Your task to perform on an android device: Show the shopping cart on costco.com. Image 0: 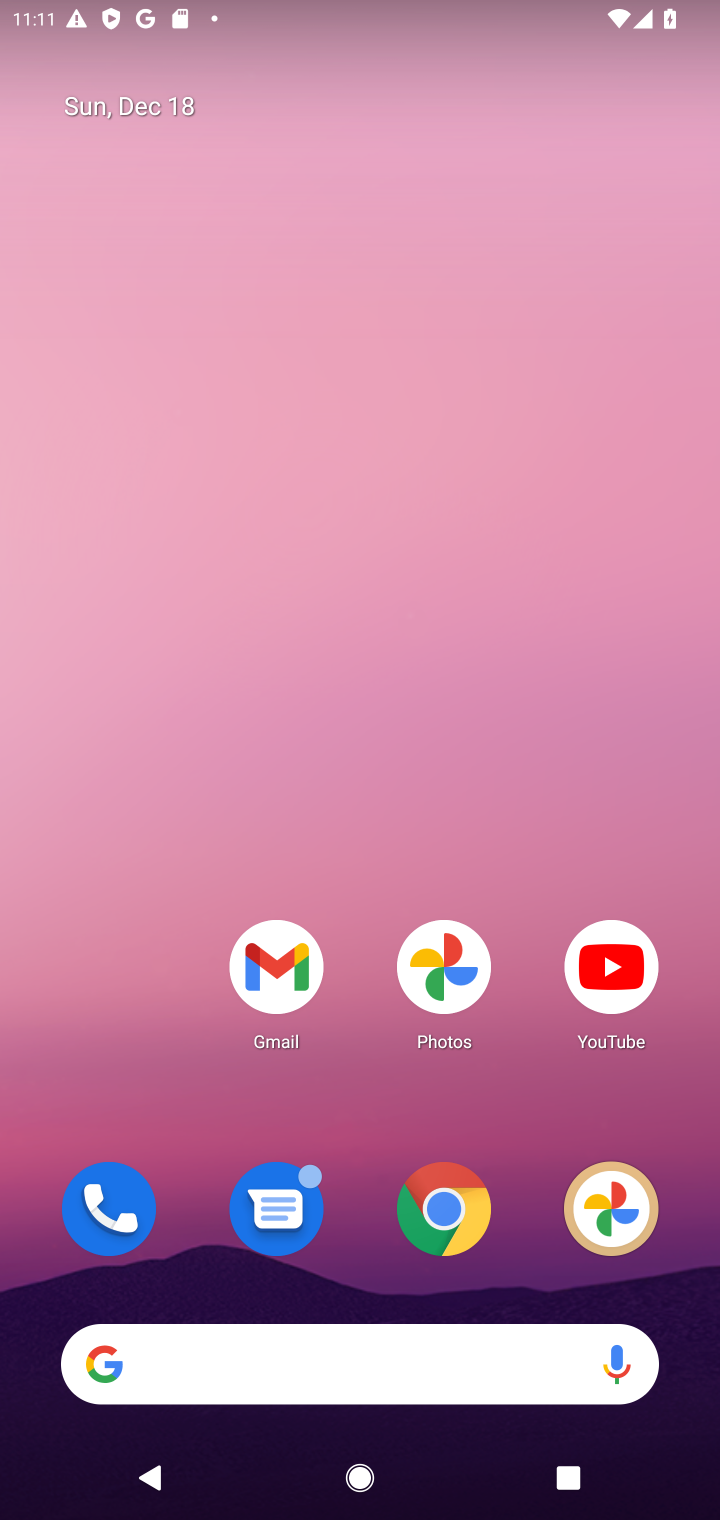
Step 0: click (452, 1218)
Your task to perform on an android device: Show the shopping cart on costco.com. Image 1: 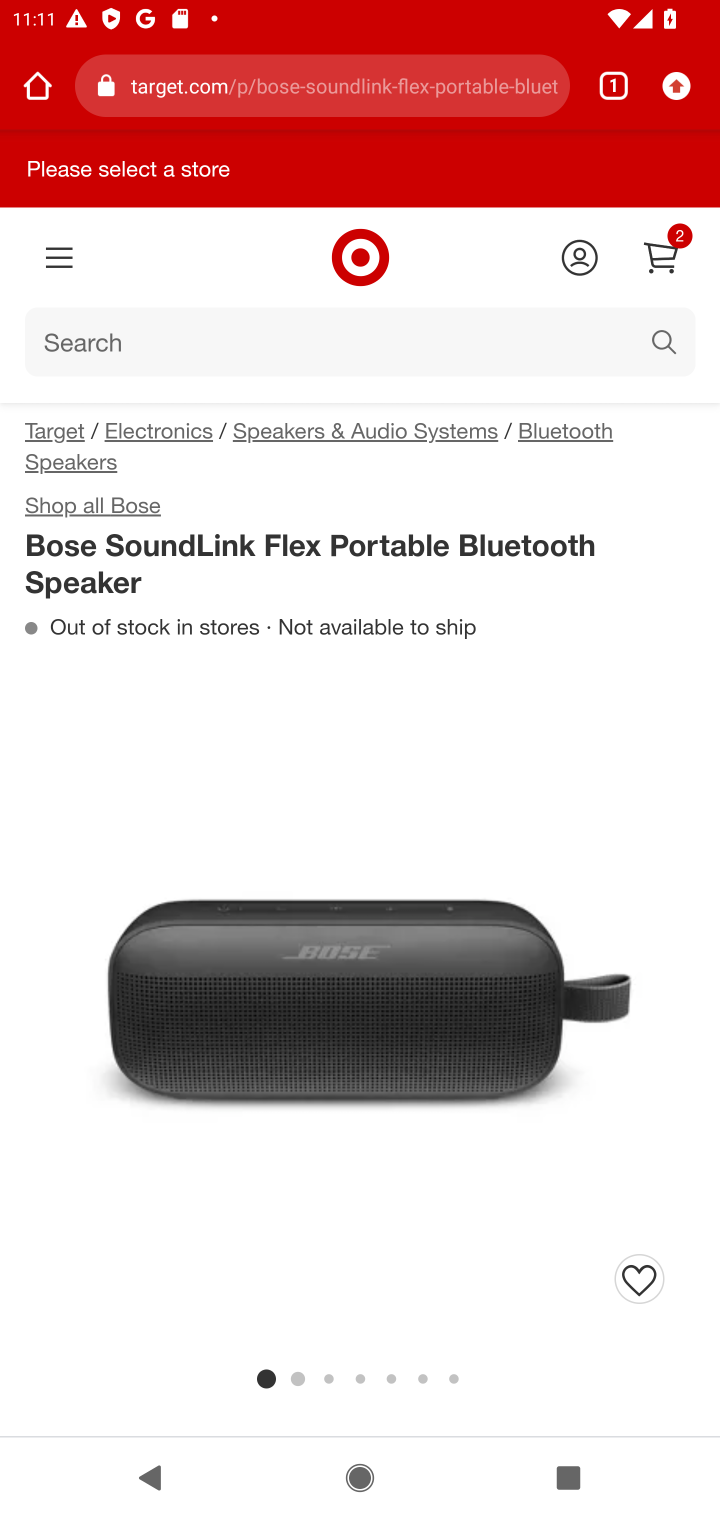
Step 1: click (353, 78)
Your task to perform on an android device: Show the shopping cart on costco.com. Image 2: 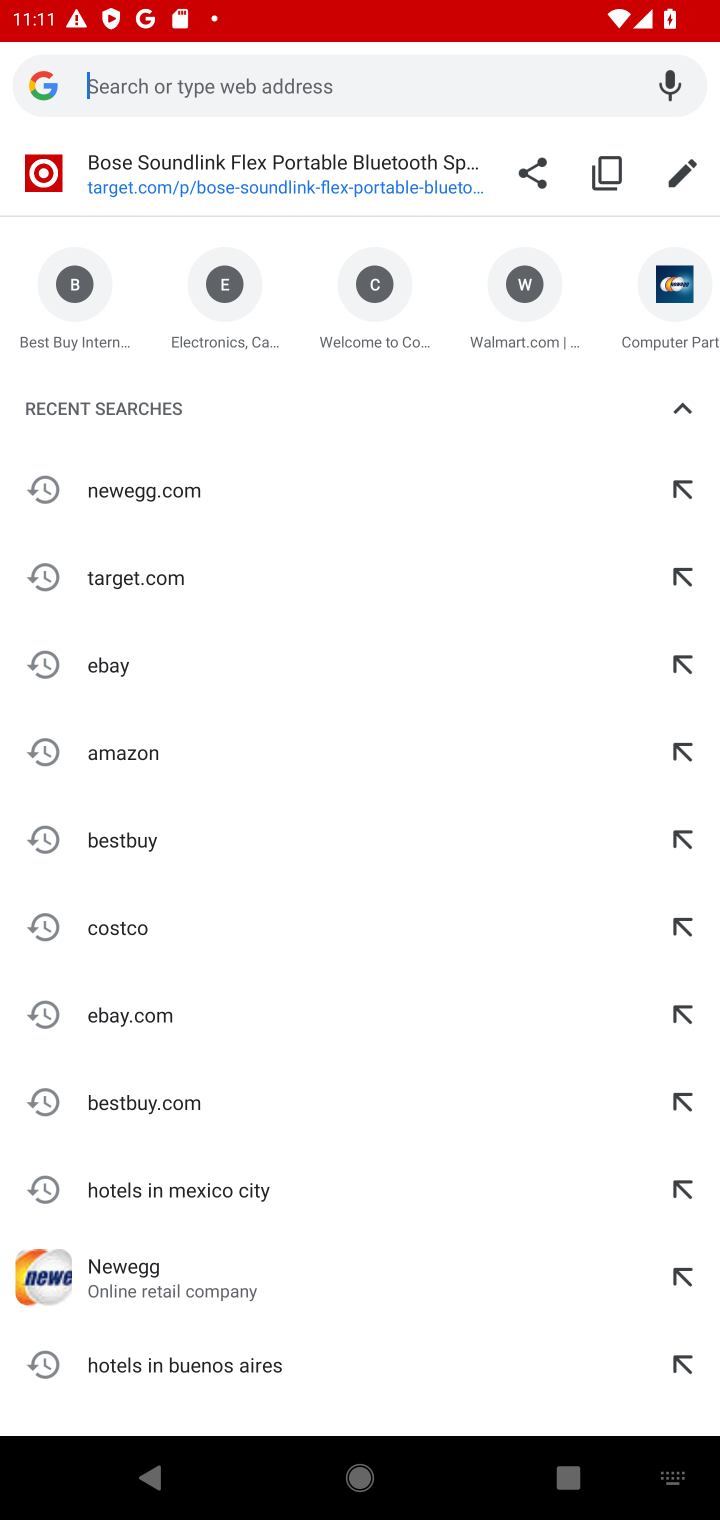
Step 2: type "COSTCO"
Your task to perform on an android device: Show the shopping cart on costco.com. Image 3: 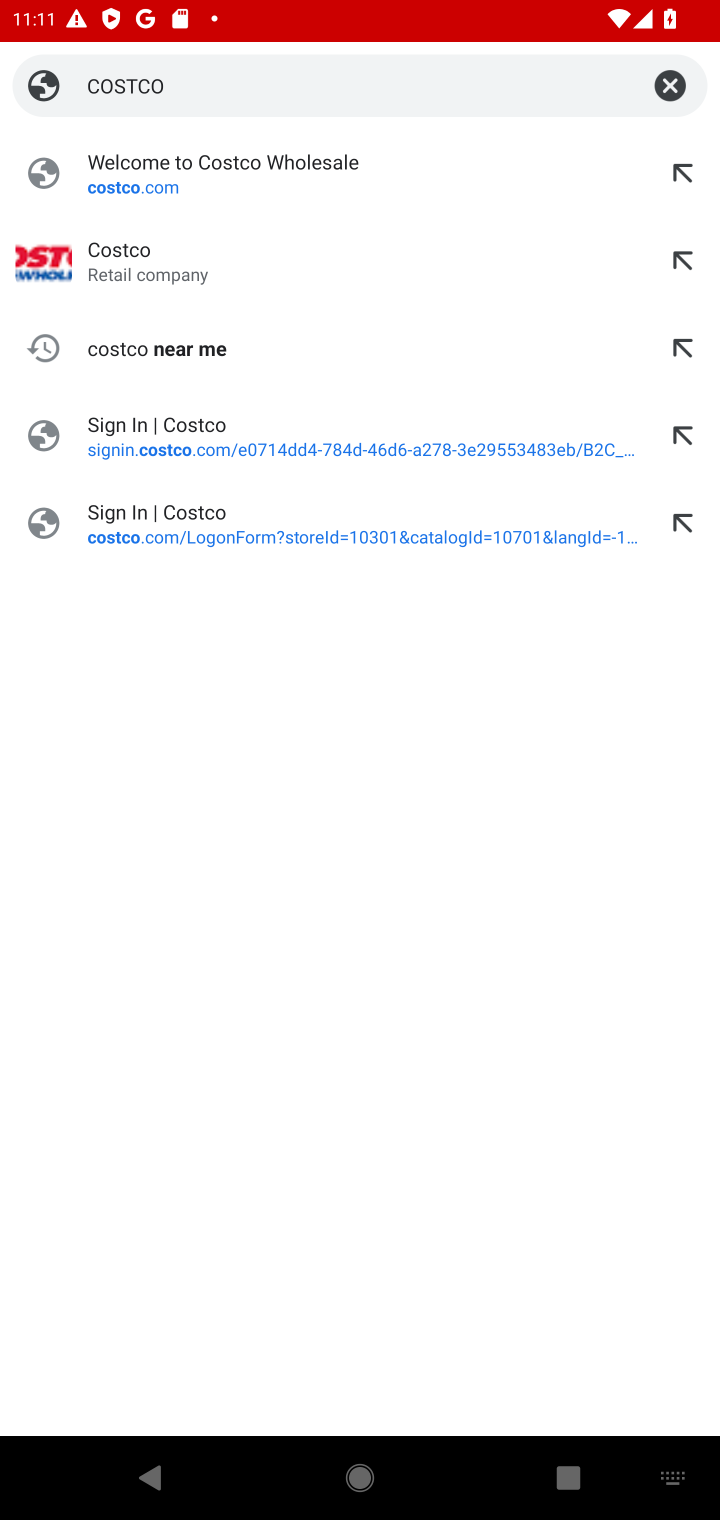
Step 3: click (167, 178)
Your task to perform on an android device: Show the shopping cart on costco.com. Image 4: 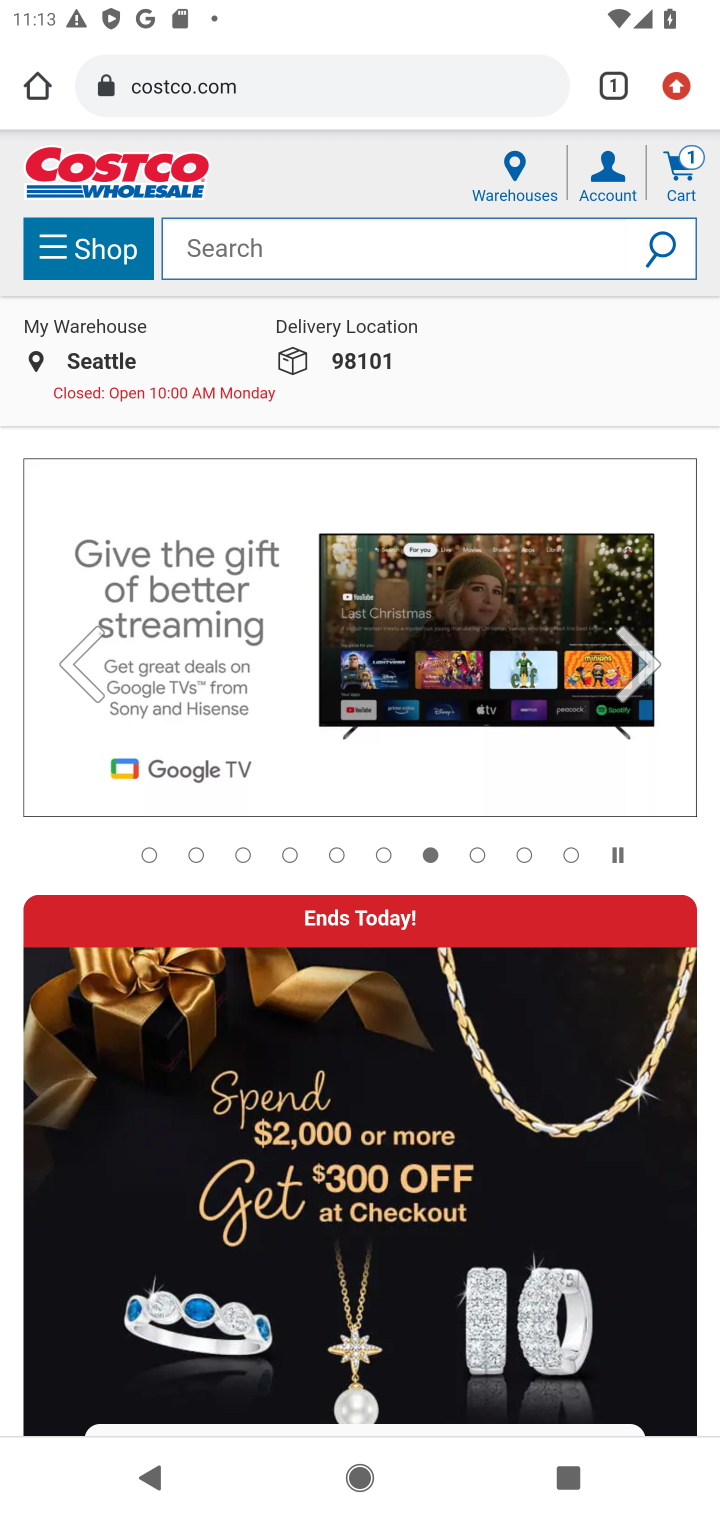
Step 4: click (76, 663)
Your task to perform on an android device: Show the shopping cart on costco.com. Image 5: 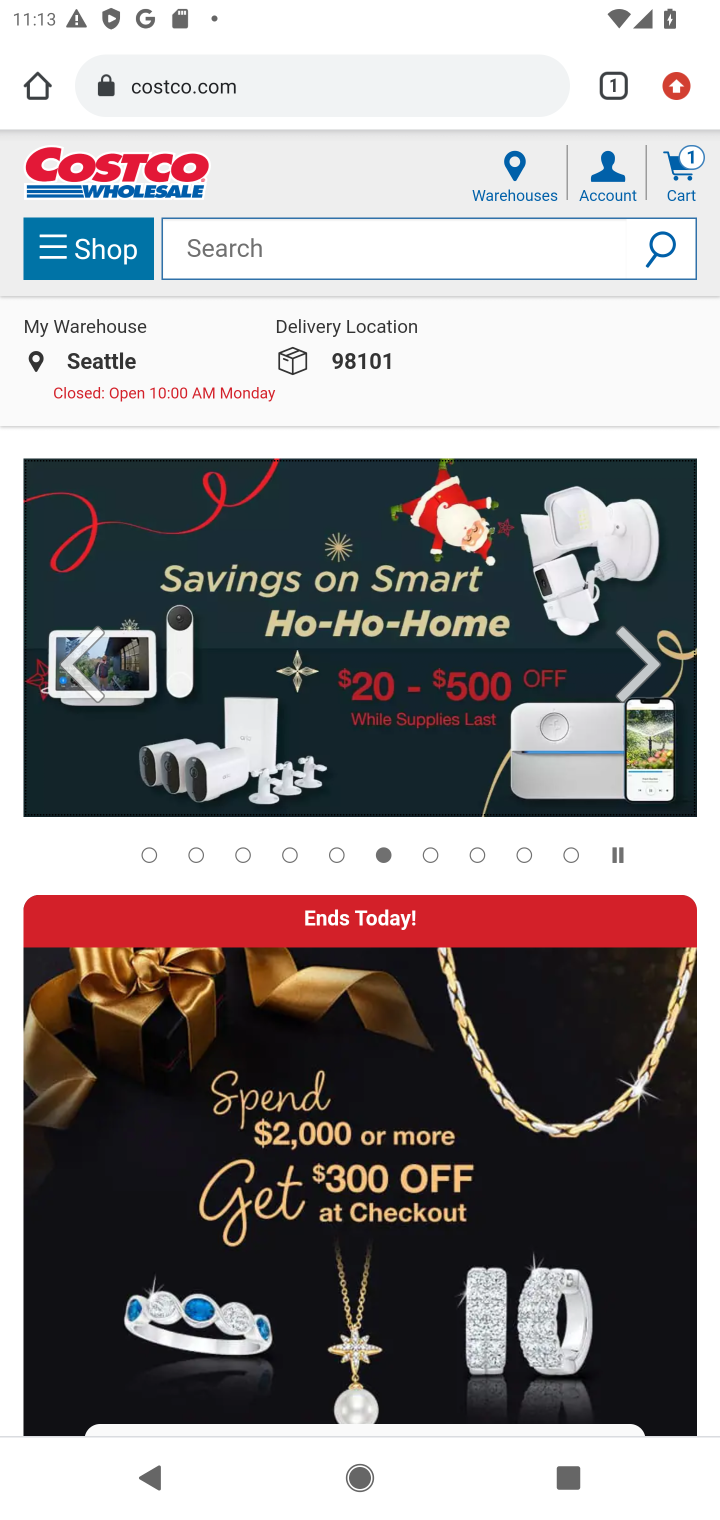
Step 5: click (76, 663)
Your task to perform on an android device: Show the shopping cart on costco.com. Image 6: 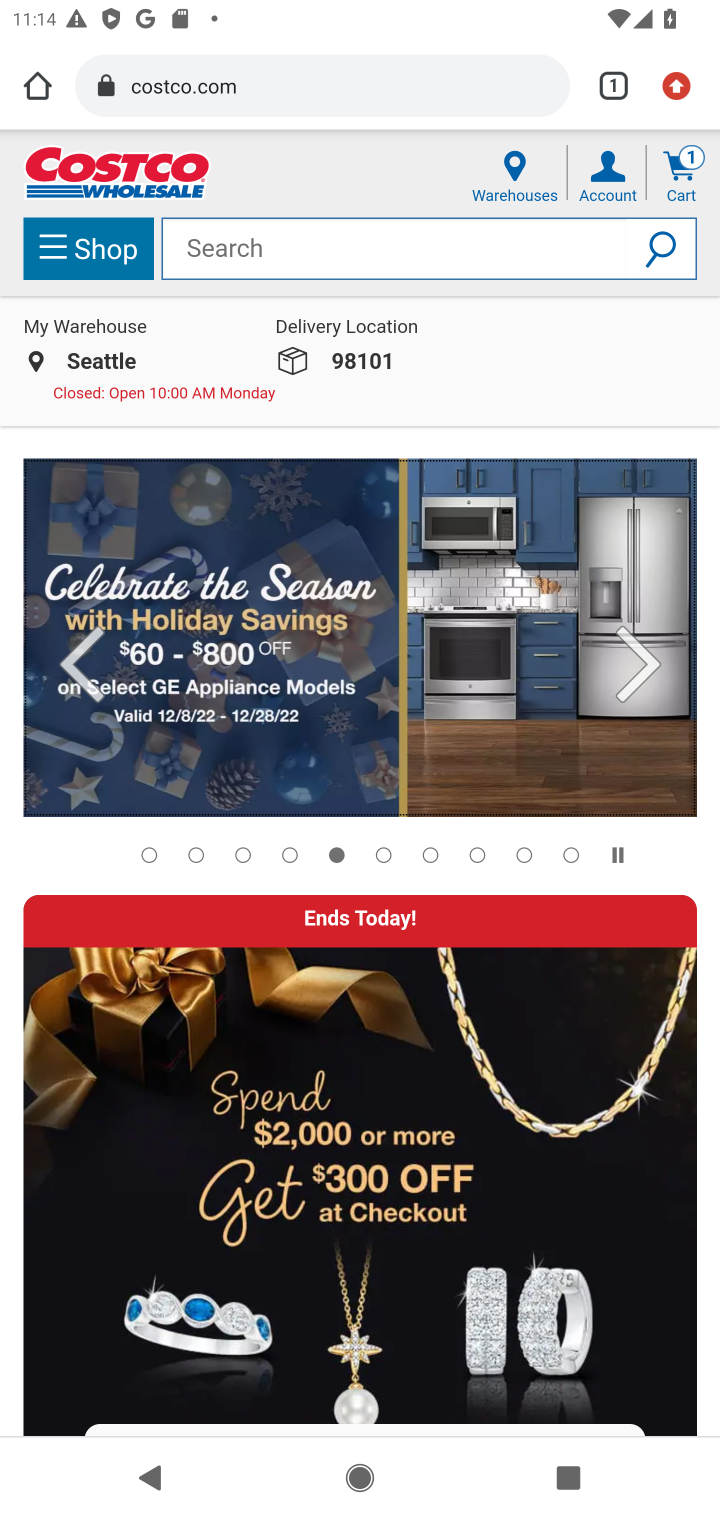
Step 6: click (76, 663)
Your task to perform on an android device: Show the shopping cart on costco.com. Image 7: 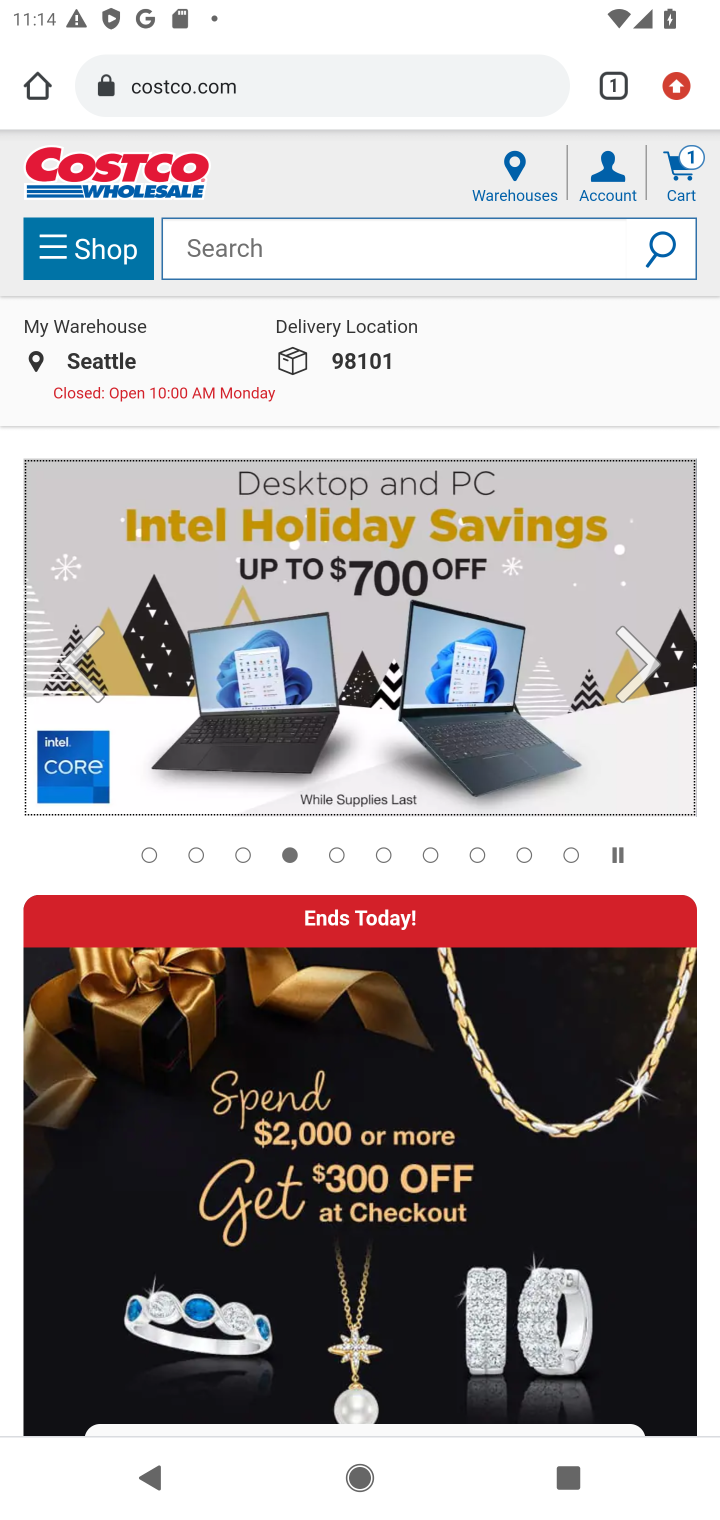
Step 7: click (76, 663)
Your task to perform on an android device: Show the shopping cart on costco.com. Image 8: 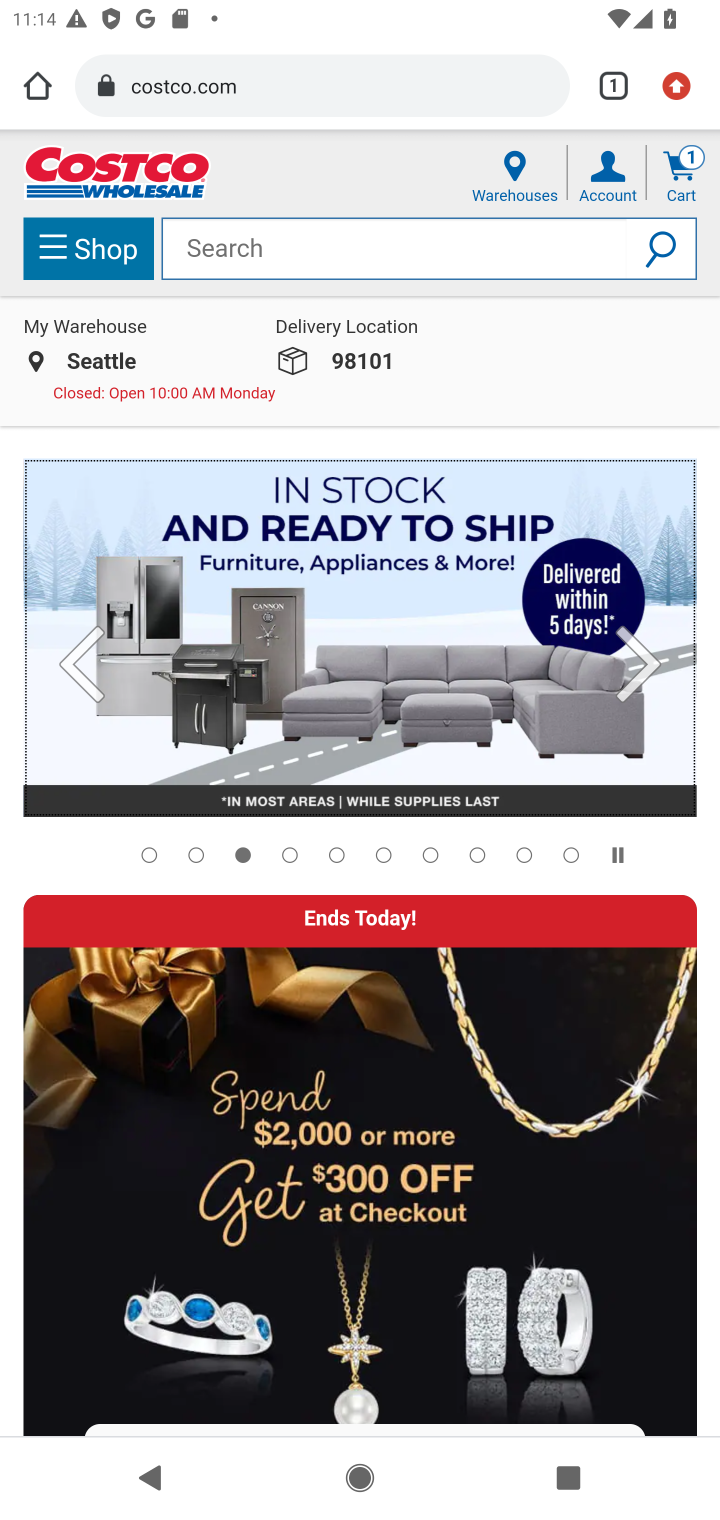
Step 8: click (76, 663)
Your task to perform on an android device: Show the shopping cart on costco.com. Image 9: 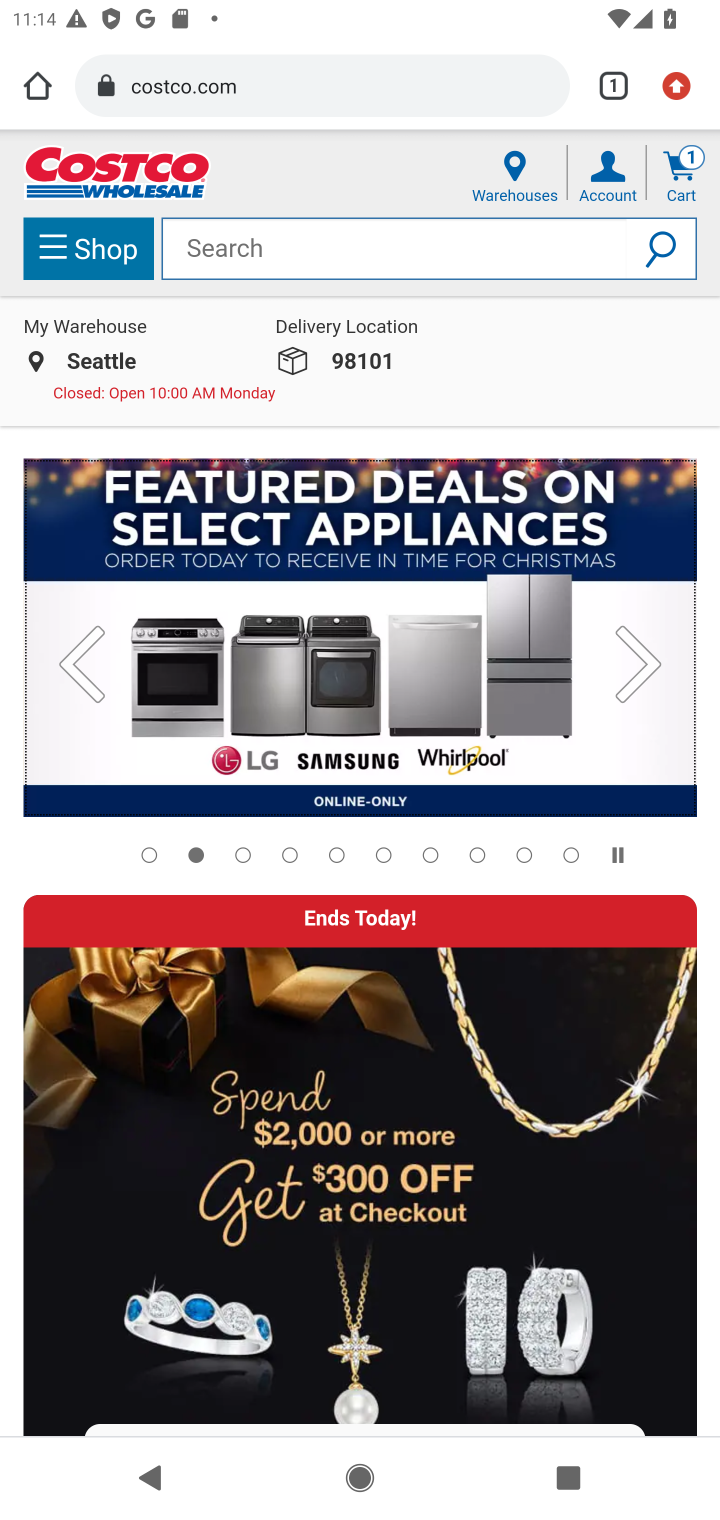
Step 9: task complete